Your task to perform on an android device: Is it going to rain today? Image 0: 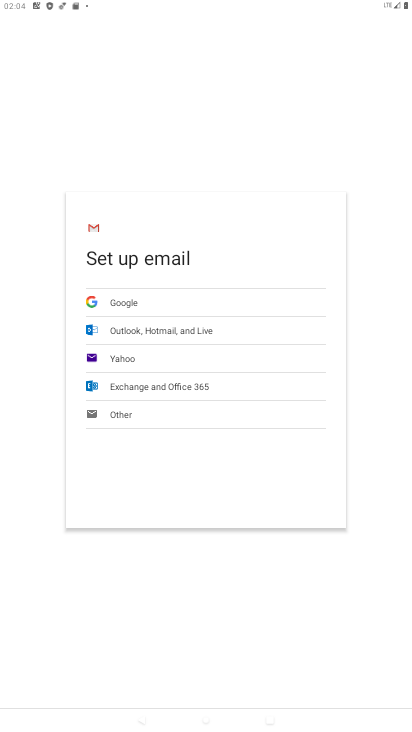
Step 0: press home button
Your task to perform on an android device: Is it going to rain today? Image 1: 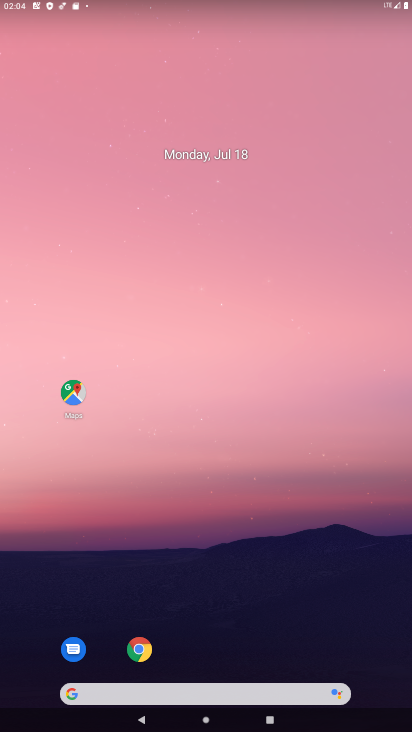
Step 1: click (120, 694)
Your task to perform on an android device: Is it going to rain today? Image 2: 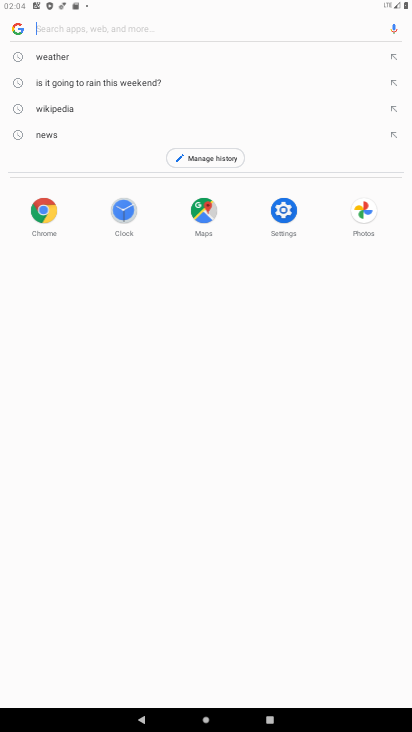
Step 2: type "Is it going to rain today?"
Your task to perform on an android device: Is it going to rain today? Image 3: 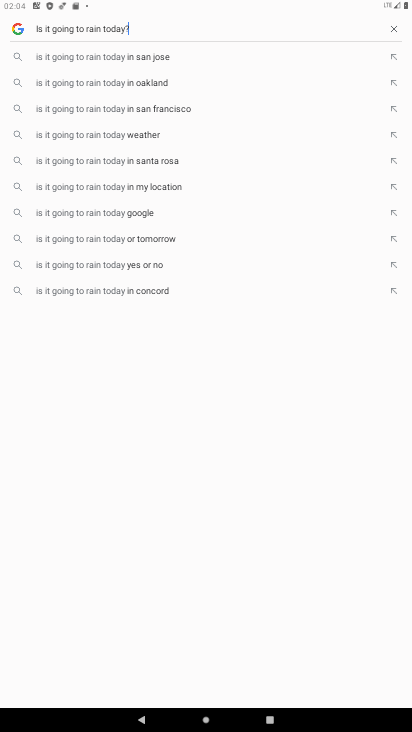
Step 3: press enter
Your task to perform on an android device: Is it going to rain today? Image 4: 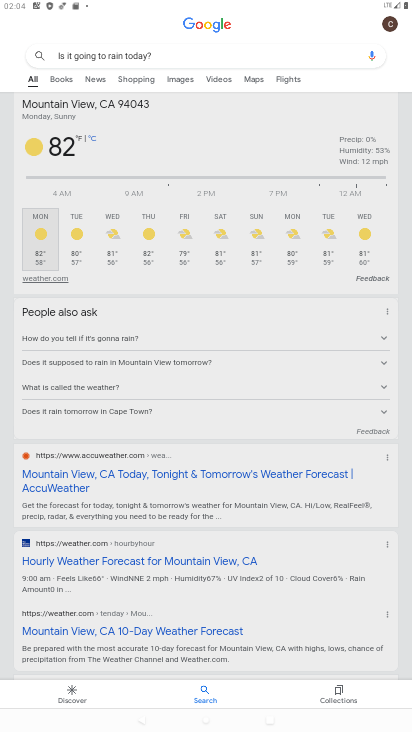
Step 4: task complete